Your task to perform on an android device: open app "Nova Launcher" Image 0: 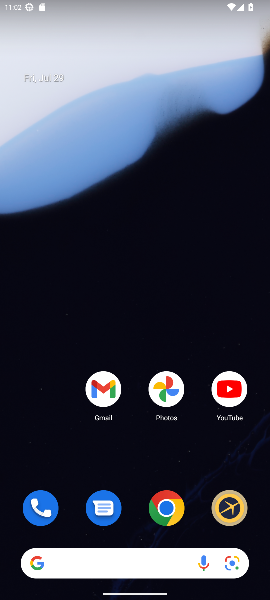
Step 0: drag from (114, 558) to (177, 2)
Your task to perform on an android device: open app "Nova Launcher" Image 1: 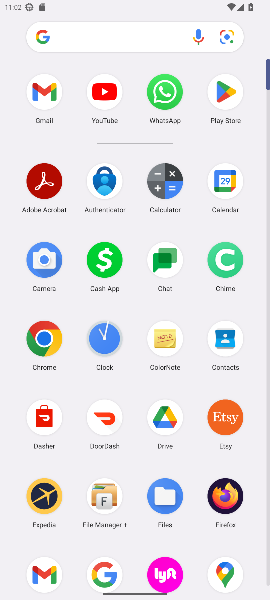
Step 1: click (222, 92)
Your task to perform on an android device: open app "Nova Launcher" Image 2: 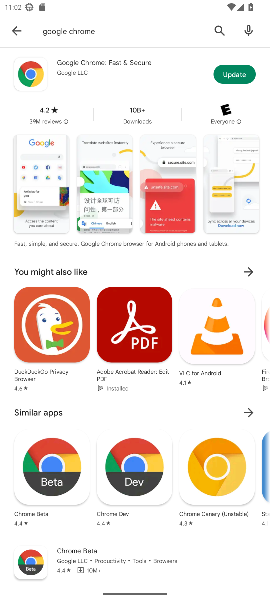
Step 2: click (218, 25)
Your task to perform on an android device: open app "Nova Launcher" Image 3: 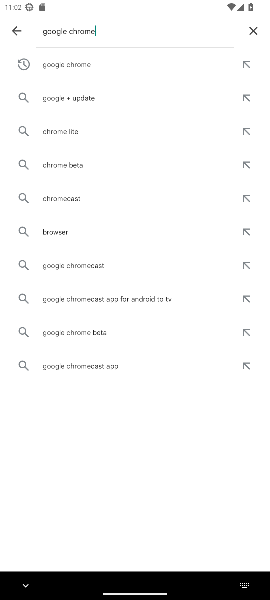
Step 3: click (252, 29)
Your task to perform on an android device: open app "Nova Launcher" Image 4: 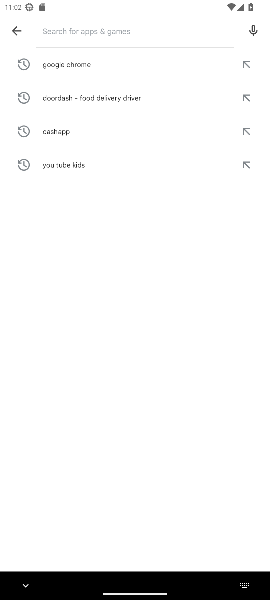
Step 4: type "nova launcher"
Your task to perform on an android device: open app "Nova Launcher" Image 5: 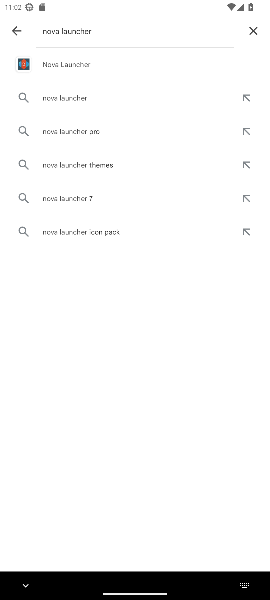
Step 5: click (78, 65)
Your task to perform on an android device: open app "Nova Launcher" Image 6: 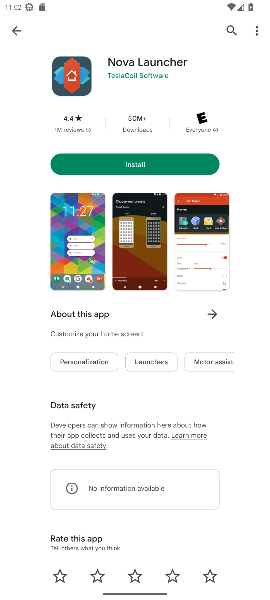
Step 6: task complete